Your task to perform on an android device: Go to settings Image 0: 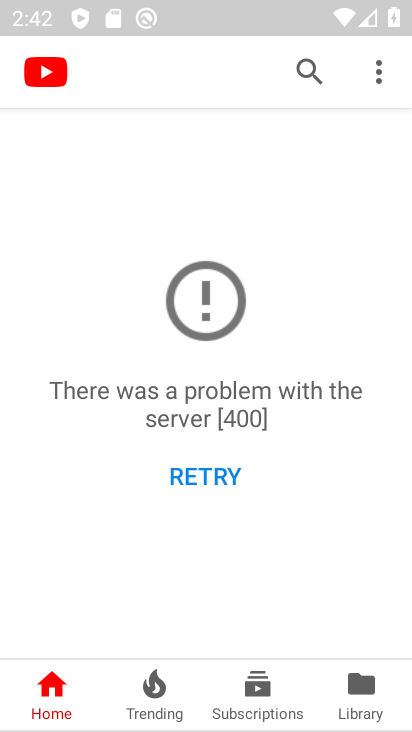
Step 0: press home button
Your task to perform on an android device: Go to settings Image 1: 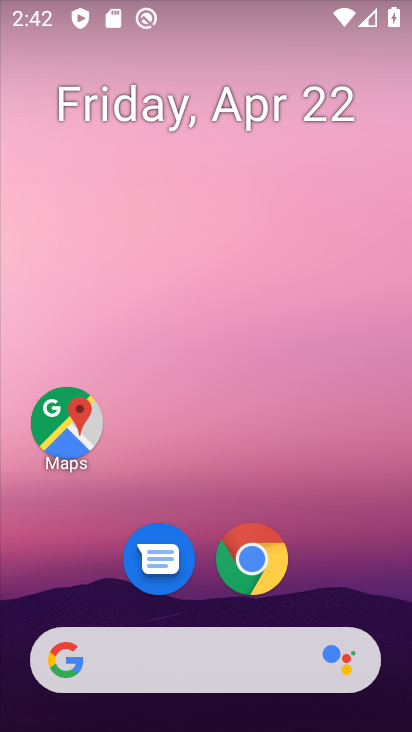
Step 1: drag from (274, 713) to (290, 24)
Your task to perform on an android device: Go to settings Image 2: 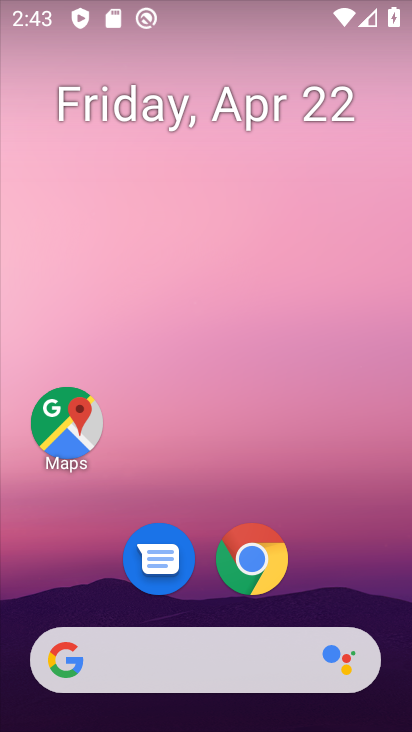
Step 2: drag from (210, 719) to (202, 39)
Your task to perform on an android device: Go to settings Image 3: 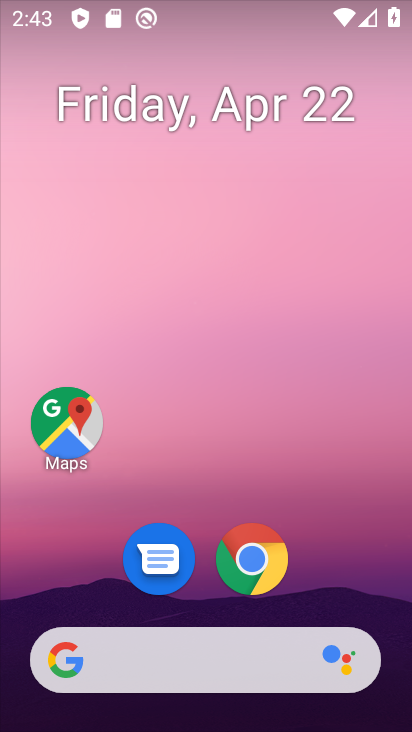
Step 3: drag from (247, 722) to (254, 88)
Your task to perform on an android device: Go to settings Image 4: 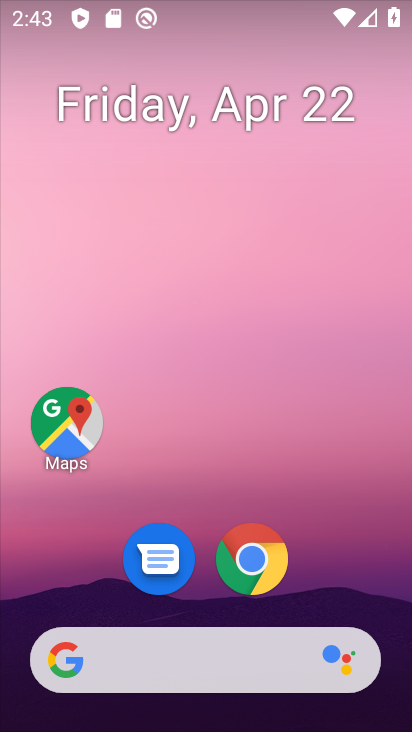
Step 4: drag from (232, 585) to (253, 15)
Your task to perform on an android device: Go to settings Image 5: 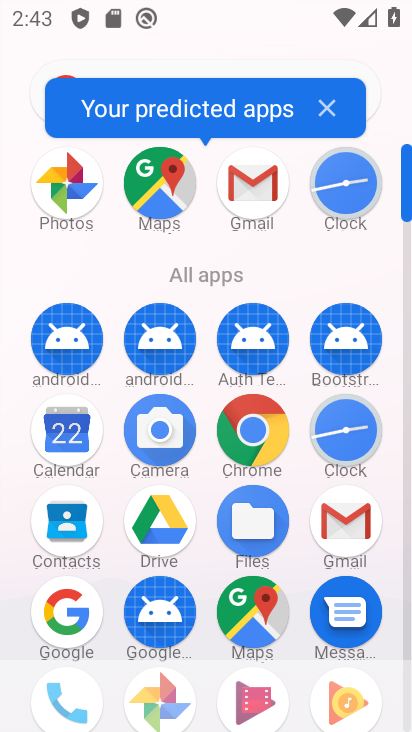
Step 5: drag from (258, 628) to (227, 66)
Your task to perform on an android device: Go to settings Image 6: 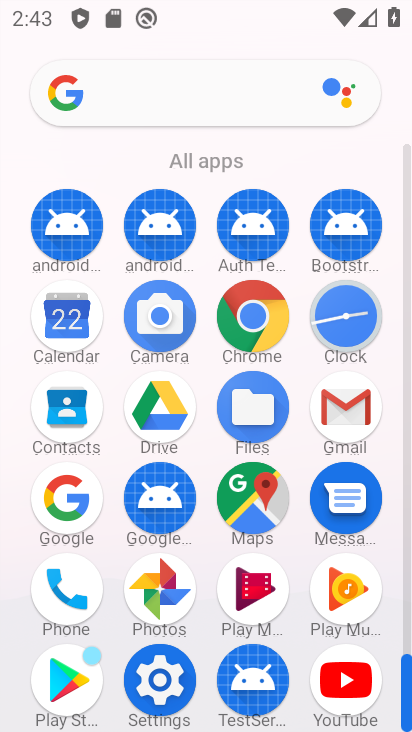
Step 6: click (172, 674)
Your task to perform on an android device: Go to settings Image 7: 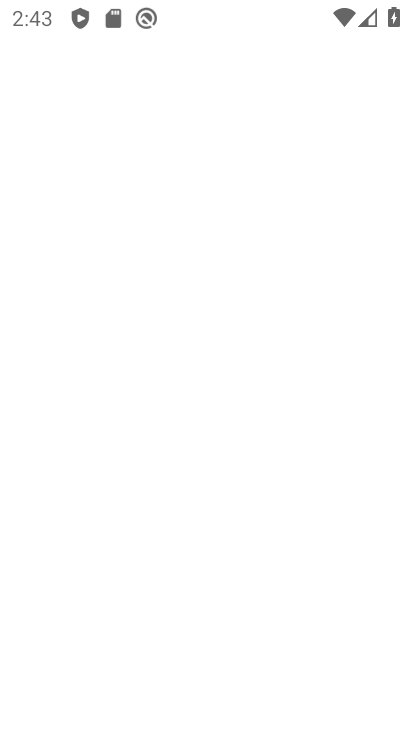
Step 7: task complete